Your task to perform on an android device: Go to Amazon Image 0: 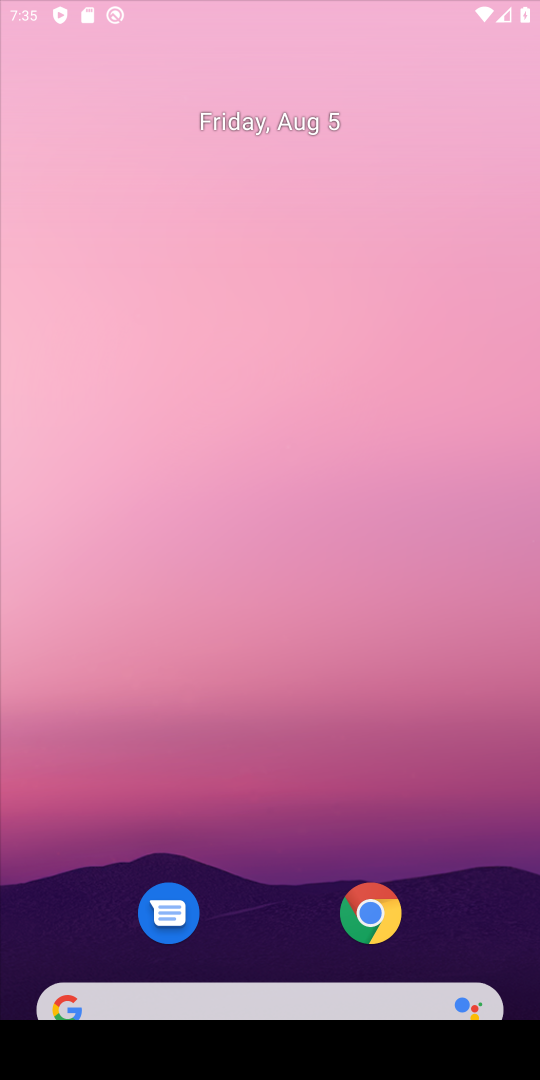
Step 0: press home button
Your task to perform on an android device: Go to Amazon Image 1: 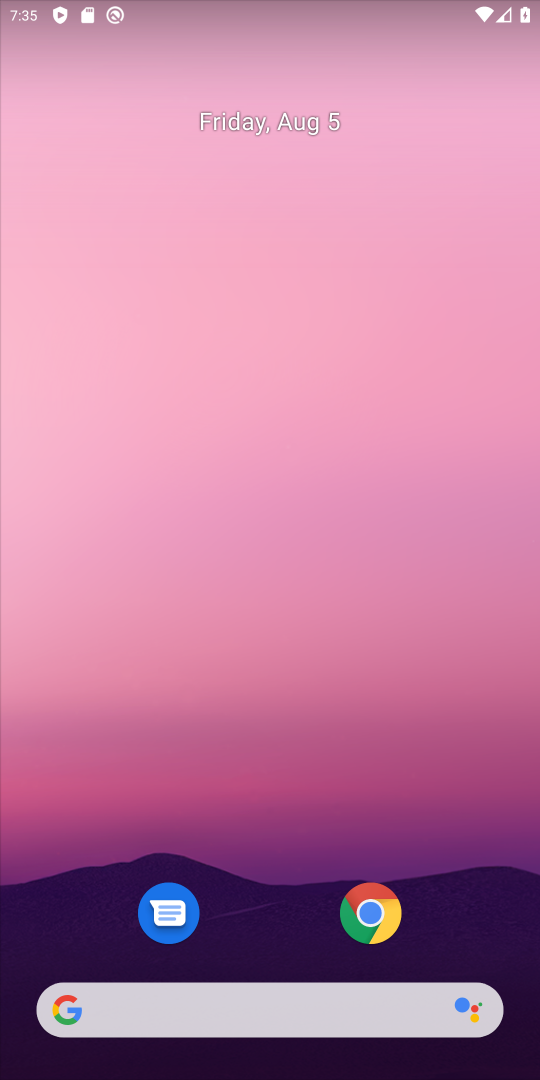
Step 1: drag from (260, 932) to (323, 289)
Your task to perform on an android device: Go to Amazon Image 2: 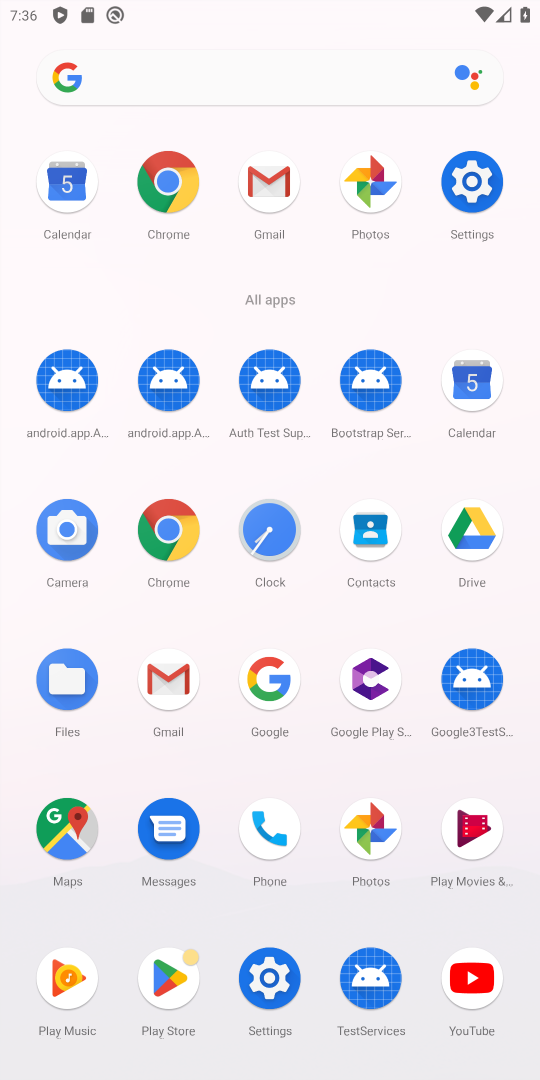
Step 2: click (160, 529)
Your task to perform on an android device: Go to Amazon Image 3: 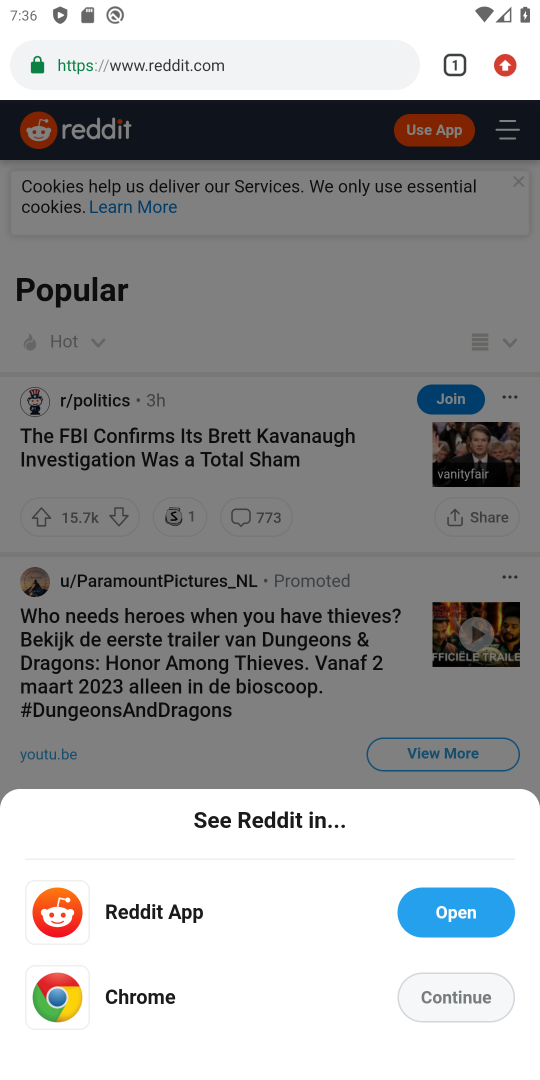
Step 3: click (296, 57)
Your task to perform on an android device: Go to Amazon Image 4: 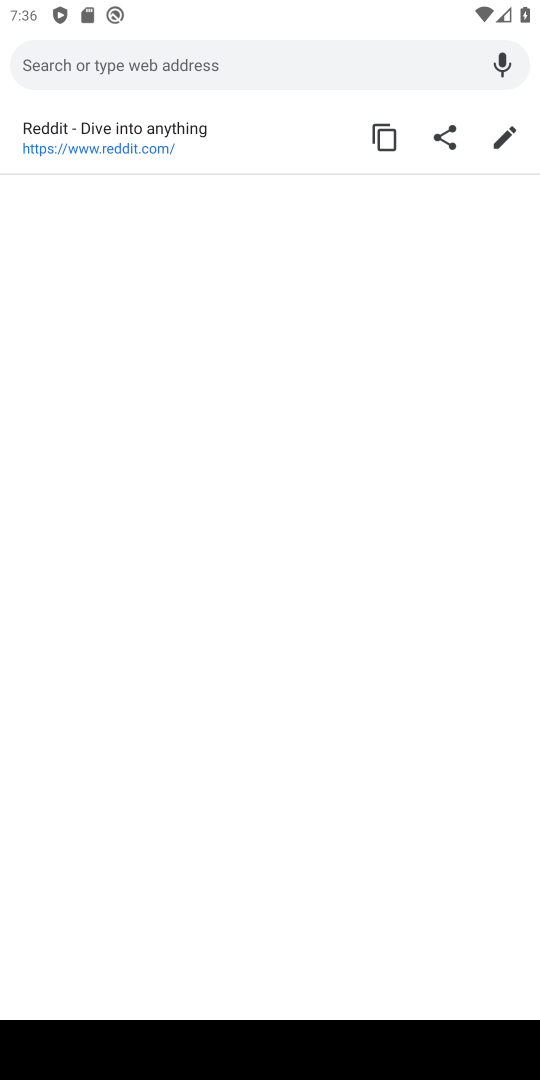
Step 4: type "amazon"
Your task to perform on an android device: Go to Amazon Image 5: 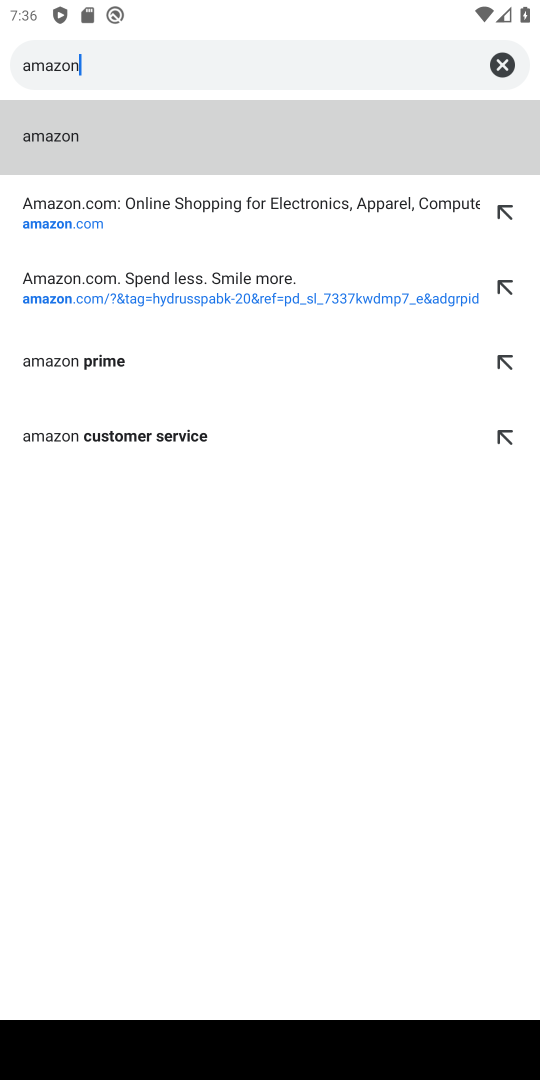
Step 5: click (342, 139)
Your task to perform on an android device: Go to Amazon Image 6: 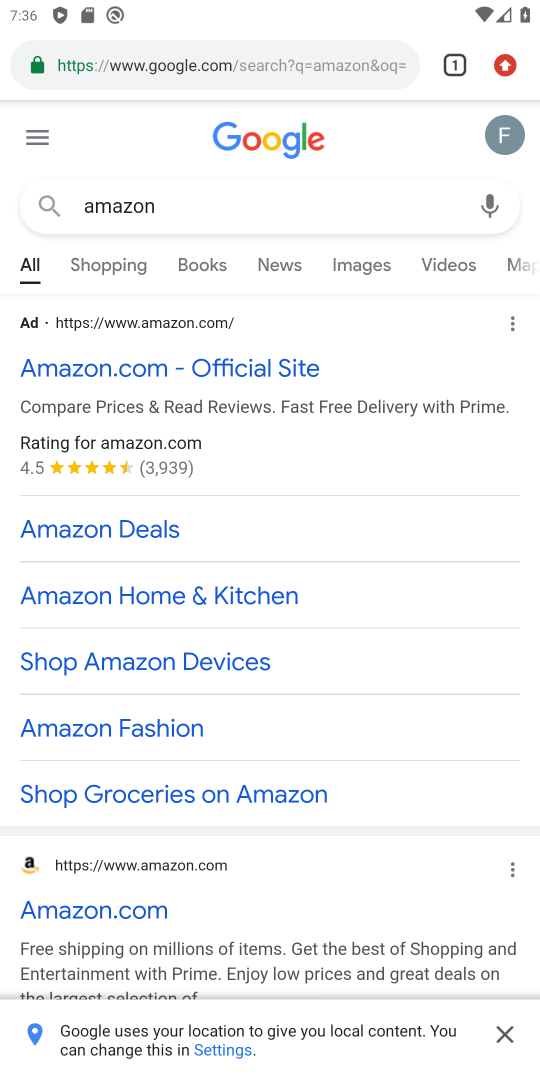
Step 6: task complete